Your task to perform on an android device: delete a single message in the gmail app Image 0: 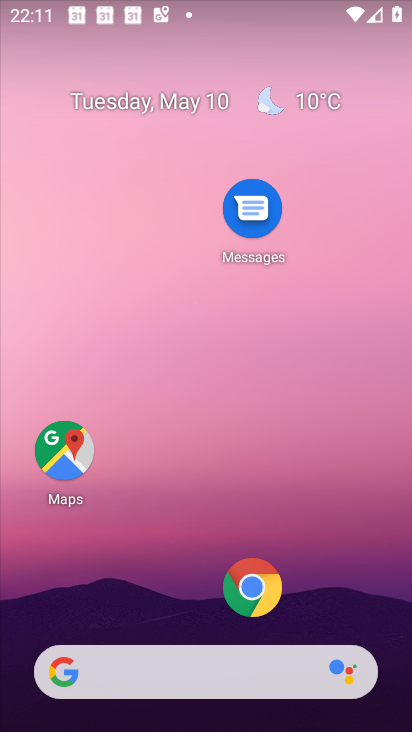
Step 0: drag from (169, 588) to (241, 38)
Your task to perform on an android device: delete a single message in the gmail app Image 1: 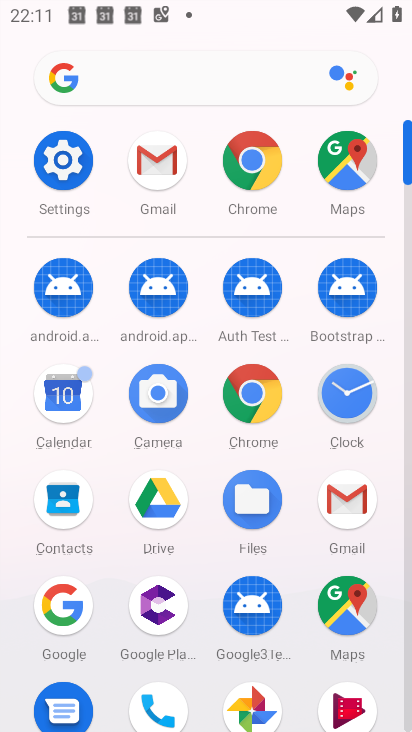
Step 1: click (370, 512)
Your task to perform on an android device: delete a single message in the gmail app Image 2: 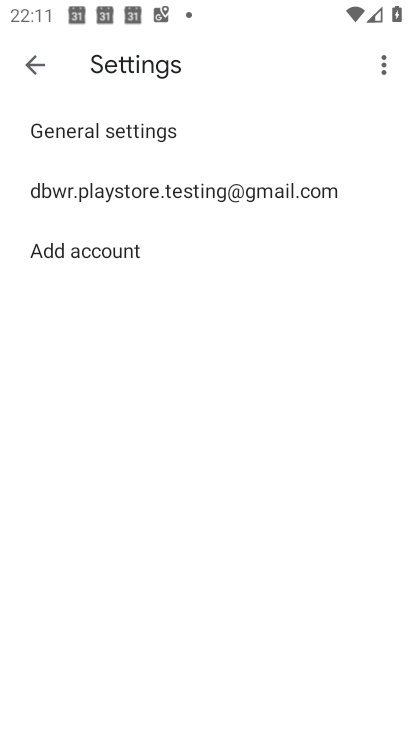
Step 2: click (46, 59)
Your task to perform on an android device: delete a single message in the gmail app Image 3: 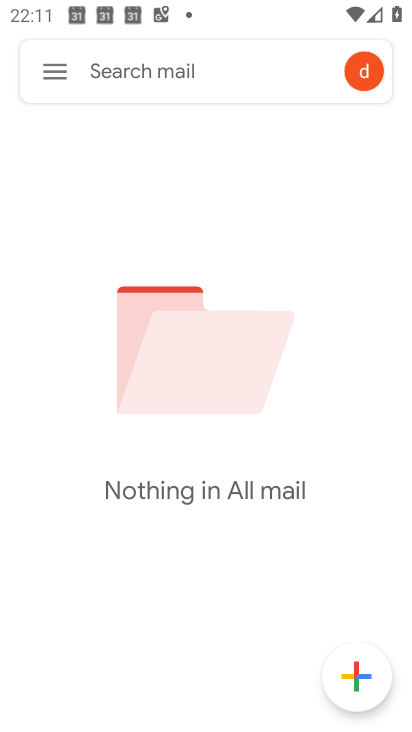
Step 3: task complete